Your task to perform on an android device: open device folders in google photos Image 0: 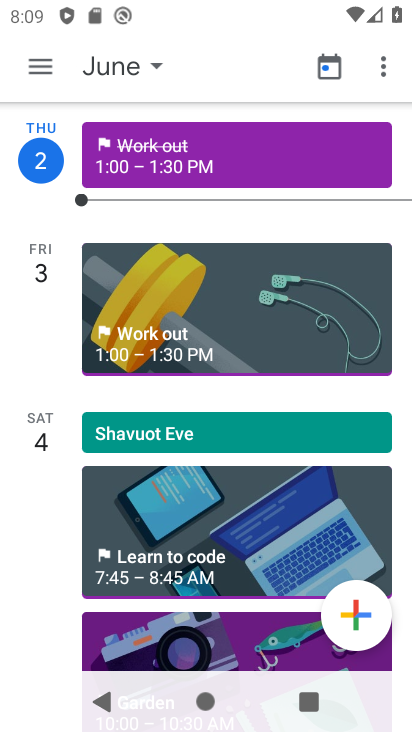
Step 0: press home button
Your task to perform on an android device: open device folders in google photos Image 1: 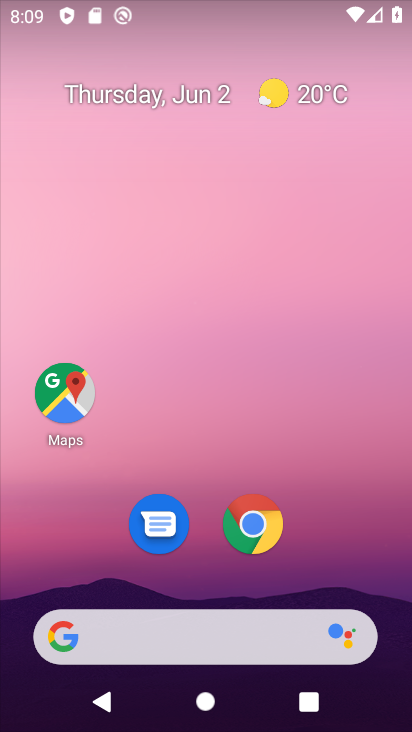
Step 1: drag from (306, 555) to (297, 31)
Your task to perform on an android device: open device folders in google photos Image 2: 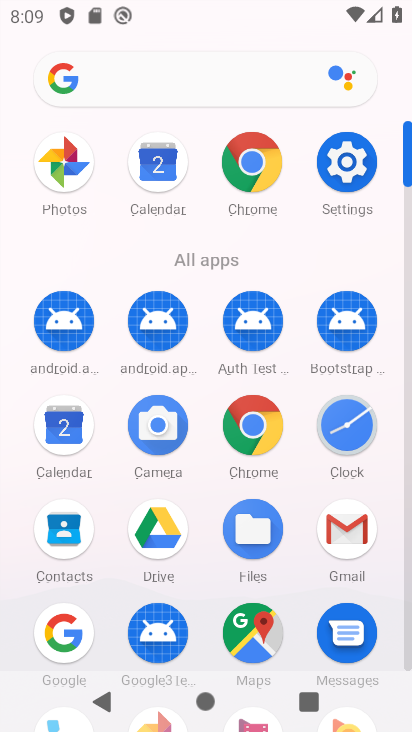
Step 2: drag from (217, 437) to (211, 141)
Your task to perform on an android device: open device folders in google photos Image 3: 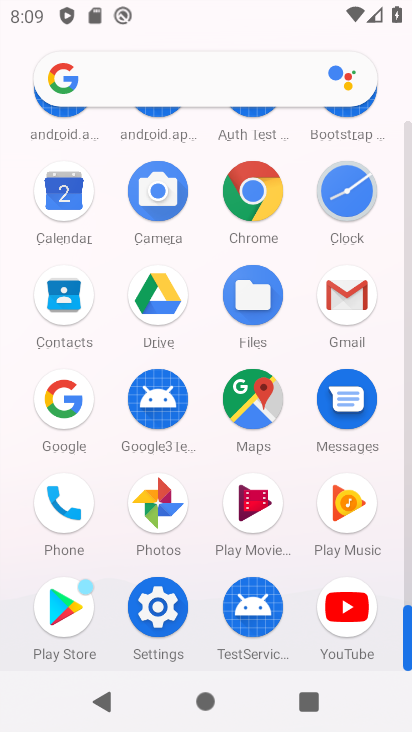
Step 3: click (175, 486)
Your task to perform on an android device: open device folders in google photos Image 4: 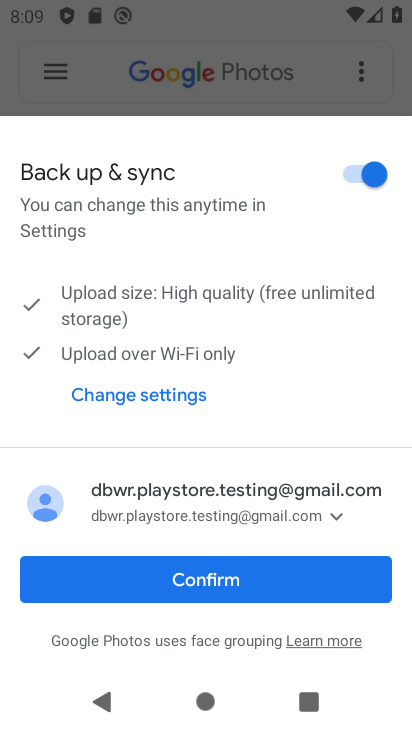
Step 4: click (296, 570)
Your task to perform on an android device: open device folders in google photos Image 5: 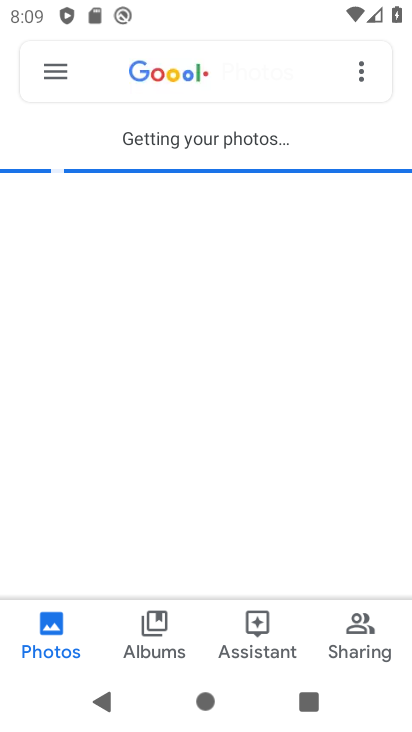
Step 5: click (51, 72)
Your task to perform on an android device: open device folders in google photos Image 6: 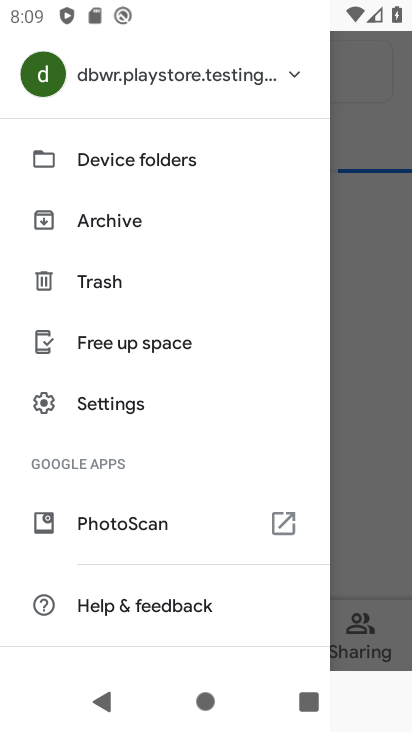
Step 6: click (101, 149)
Your task to perform on an android device: open device folders in google photos Image 7: 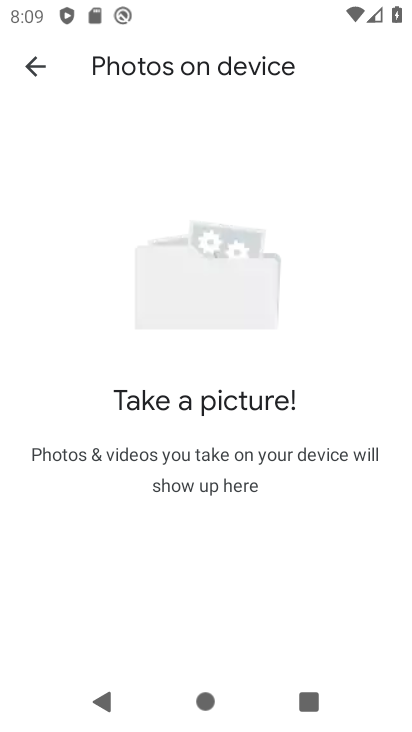
Step 7: task complete